Your task to perform on an android device: Open Youtube and go to "Your channel" Image 0: 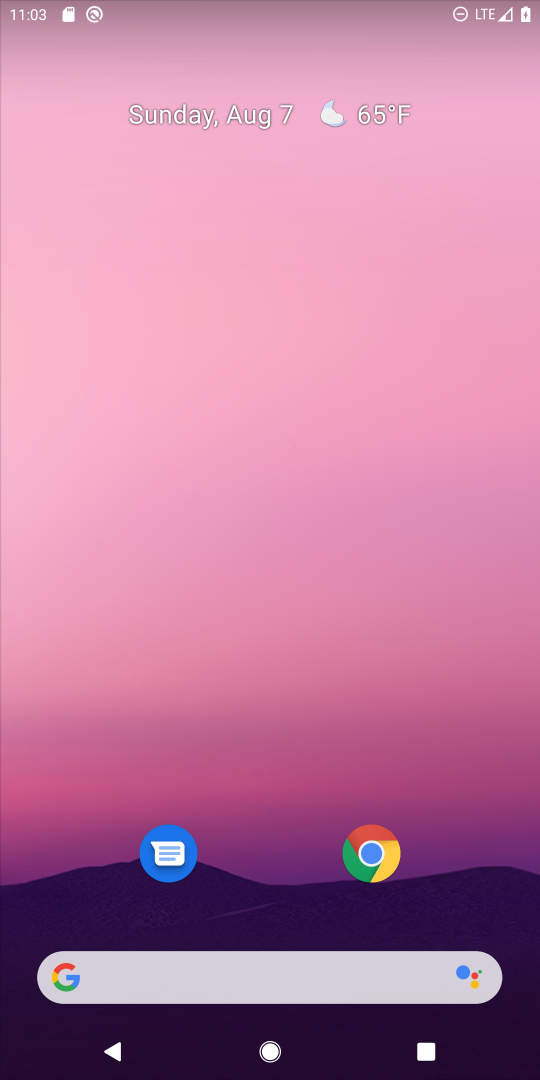
Step 0: drag from (305, 916) to (290, 280)
Your task to perform on an android device: Open Youtube and go to "Your channel" Image 1: 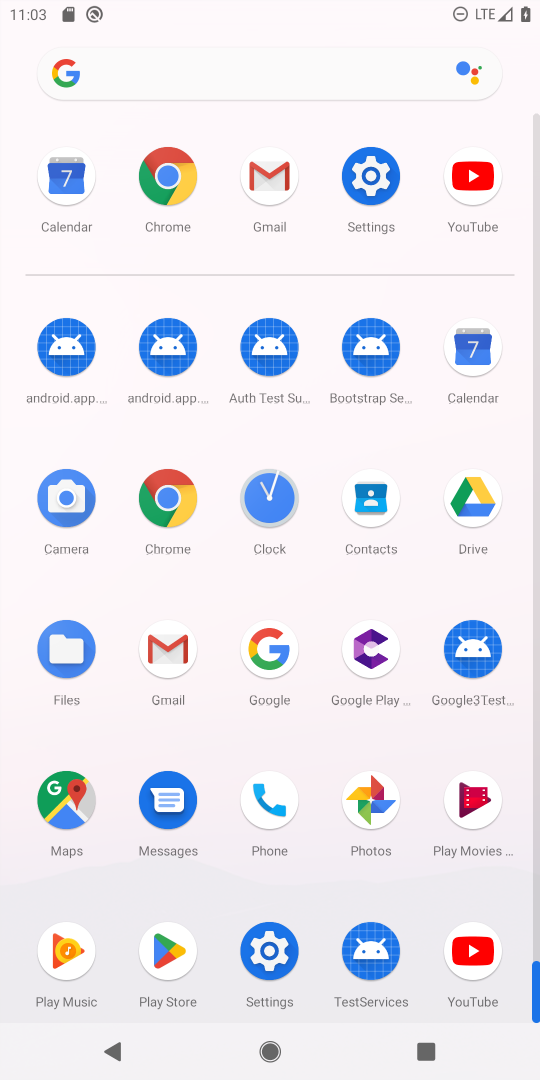
Step 1: click (465, 934)
Your task to perform on an android device: Open Youtube and go to "Your channel" Image 2: 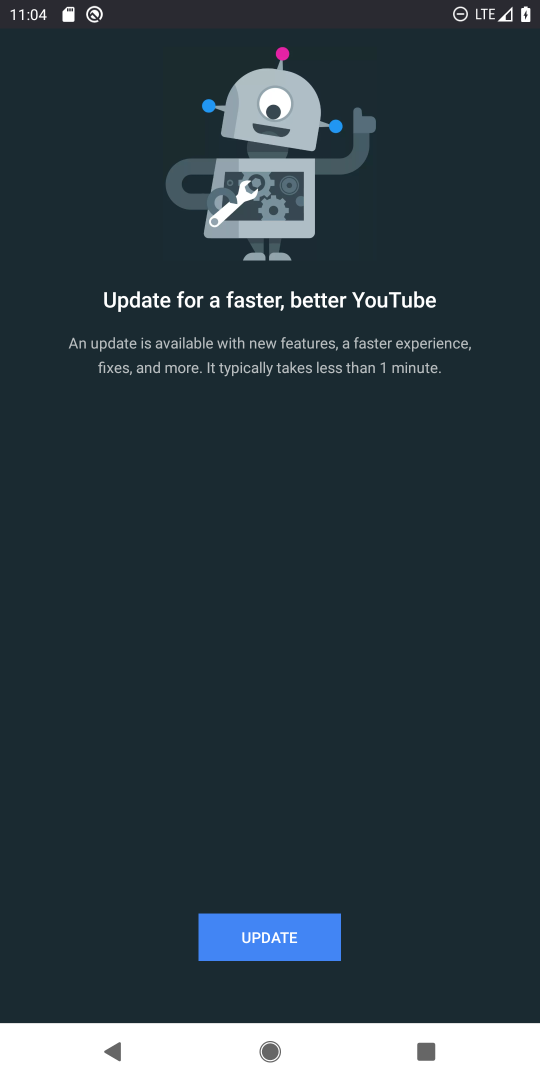
Step 2: task complete